Your task to perform on an android device: change the clock display to show seconds Image 0: 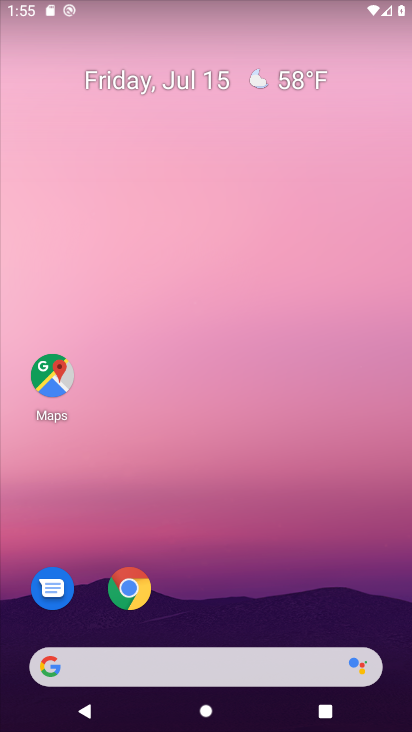
Step 0: drag from (297, 566) to (276, 169)
Your task to perform on an android device: change the clock display to show seconds Image 1: 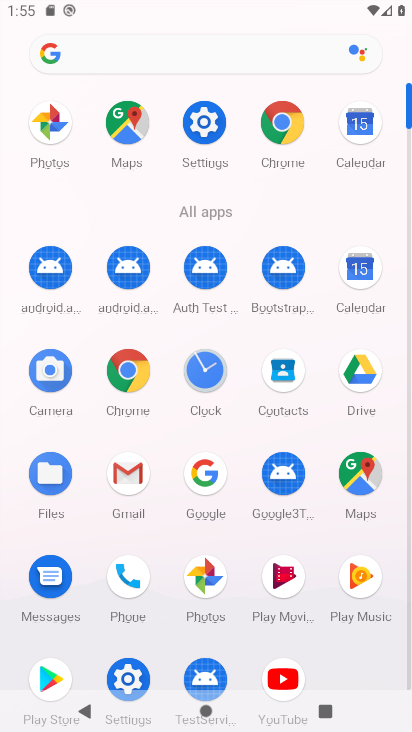
Step 1: click (209, 384)
Your task to perform on an android device: change the clock display to show seconds Image 2: 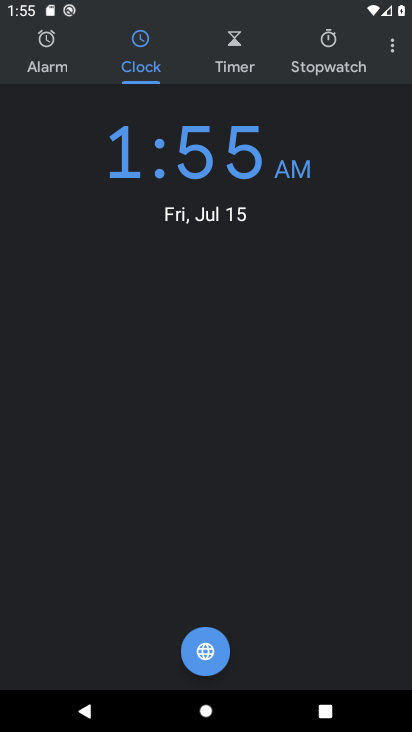
Step 2: click (386, 41)
Your task to perform on an android device: change the clock display to show seconds Image 3: 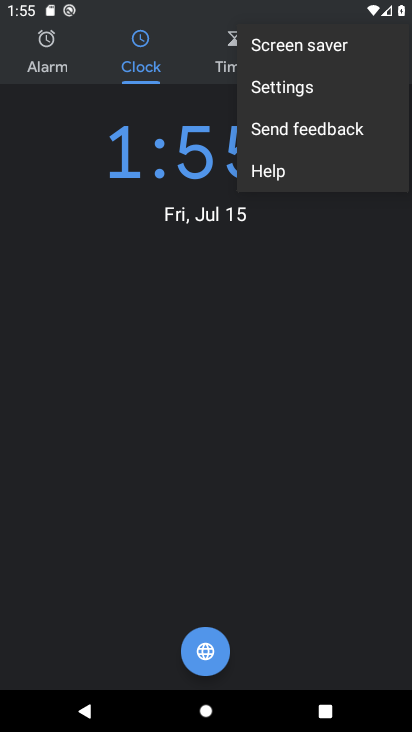
Step 3: click (330, 88)
Your task to perform on an android device: change the clock display to show seconds Image 4: 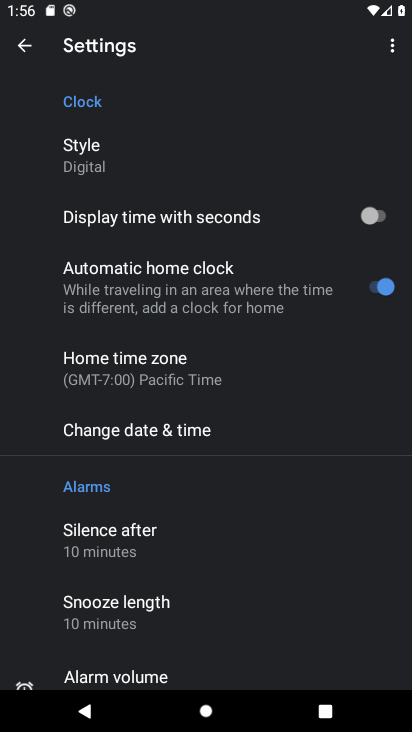
Step 4: click (386, 212)
Your task to perform on an android device: change the clock display to show seconds Image 5: 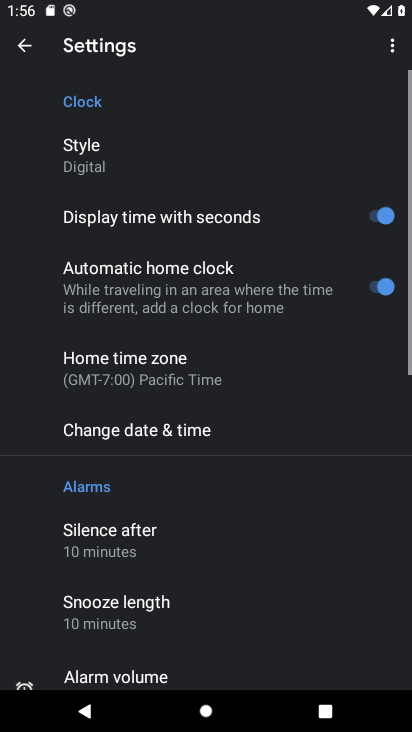
Step 5: task complete